Your task to perform on an android device: Go to Google maps Image 0: 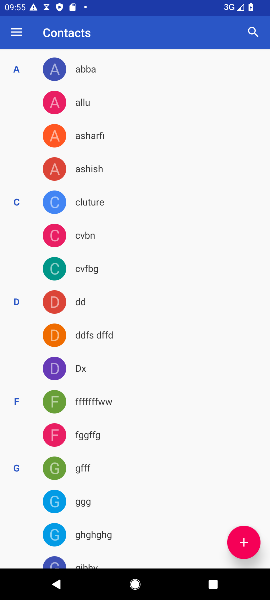
Step 0: press home button
Your task to perform on an android device: Go to Google maps Image 1: 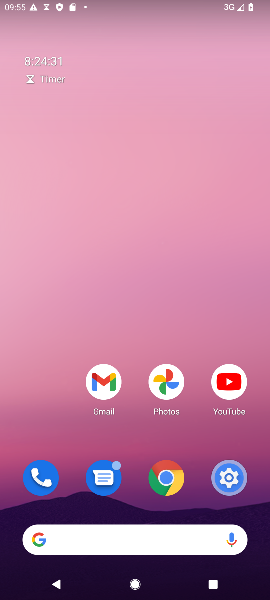
Step 1: drag from (136, 360) to (113, 105)
Your task to perform on an android device: Go to Google maps Image 2: 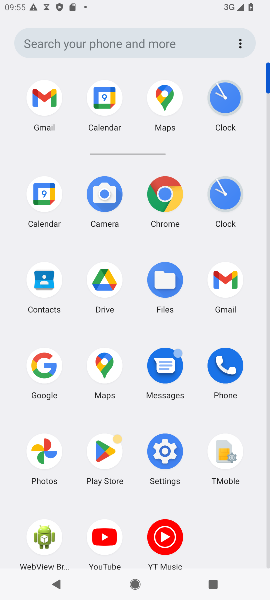
Step 2: click (162, 102)
Your task to perform on an android device: Go to Google maps Image 3: 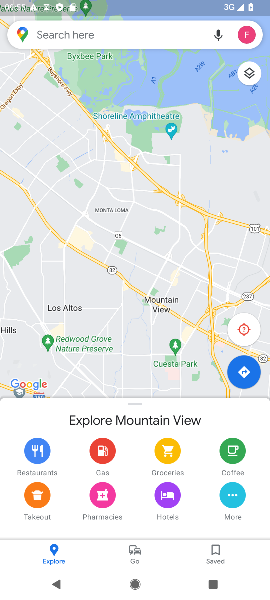
Step 3: task complete